Your task to perform on an android device: What's the weather today? Image 0: 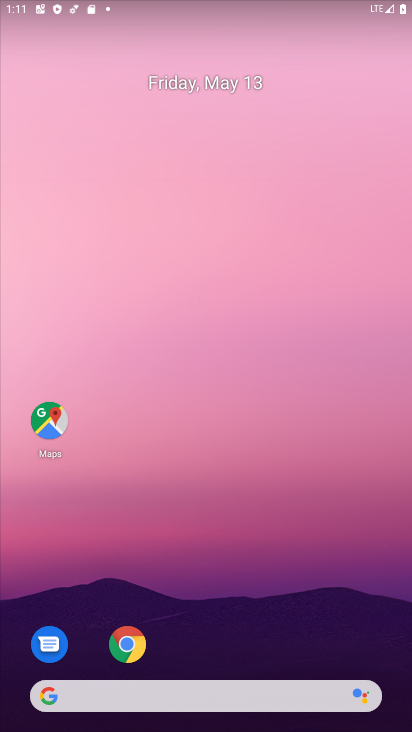
Step 0: click (174, 690)
Your task to perform on an android device: What's the weather today? Image 1: 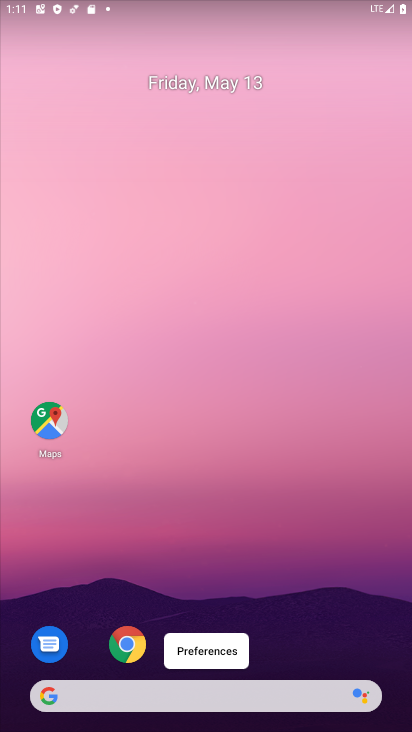
Step 1: click (174, 690)
Your task to perform on an android device: What's the weather today? Image 2: 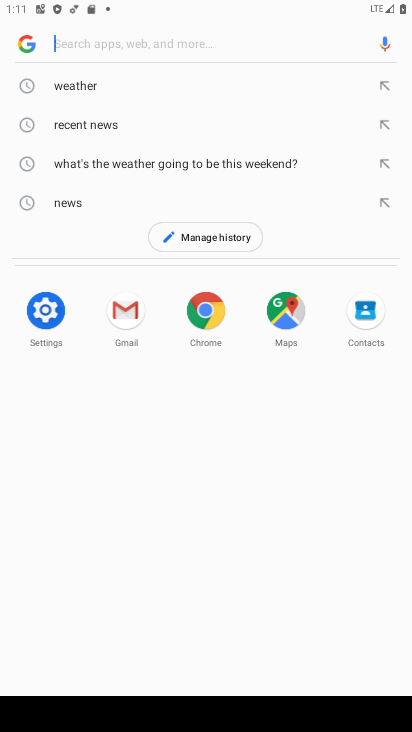
Step 2: press home button
Your task to perform on an android device: What's the weather today? Image 3: 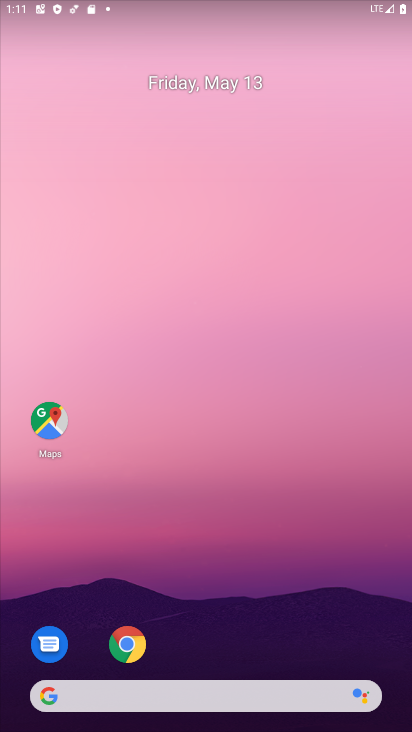
Step 3: drag from (364, 595) to (295, 34)
Your task to perform on an android device: What's the weather today? Image 4: 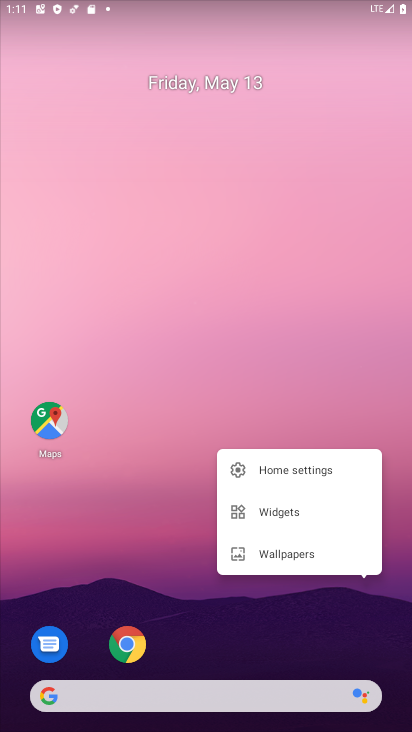
Step 4: click (126, 326)
Your task to perform on an android device: What's the weather today? Image 5: 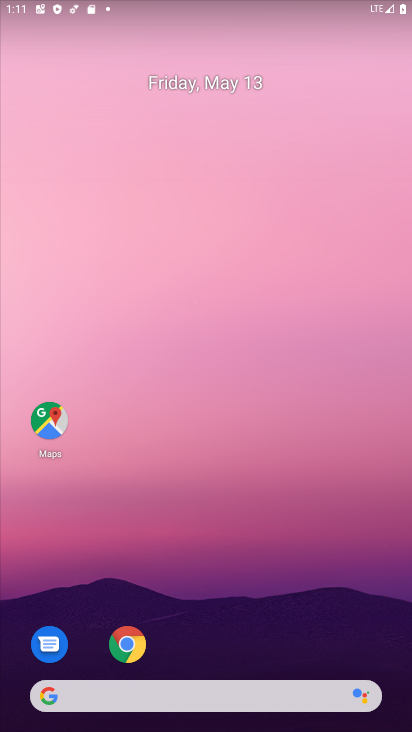
Step 5: drag from (353, 610) to (355, 20)
Your task to perform on an android device: What's the weather today? Image 6: 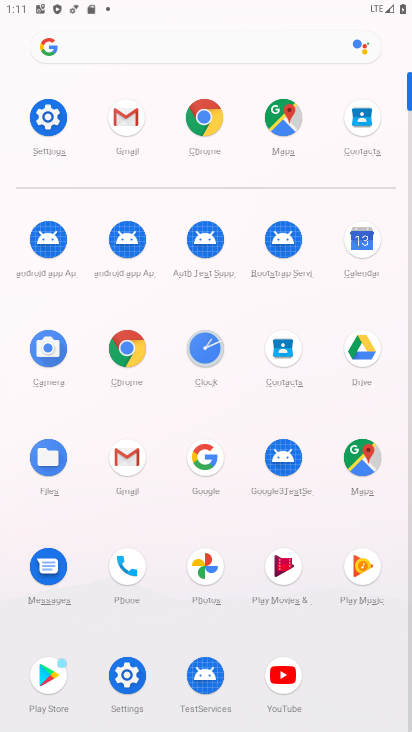
Step 6: click (208, 478)
Your task to perform on an android device: What's the weather today? Image 7: 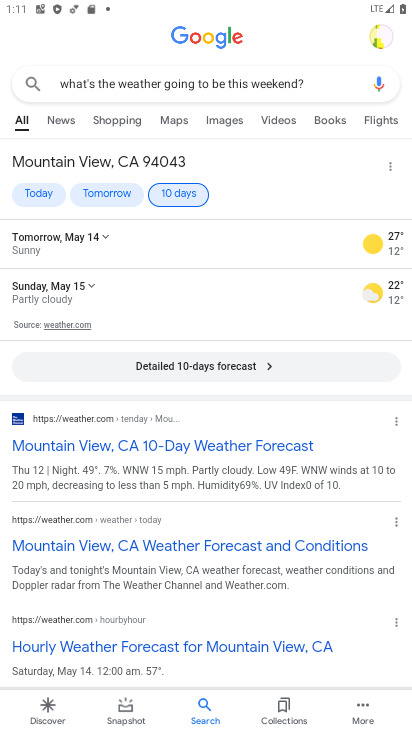
Step 7: press back button
Your task to perform on an android device: What's the weather today? Image 8: 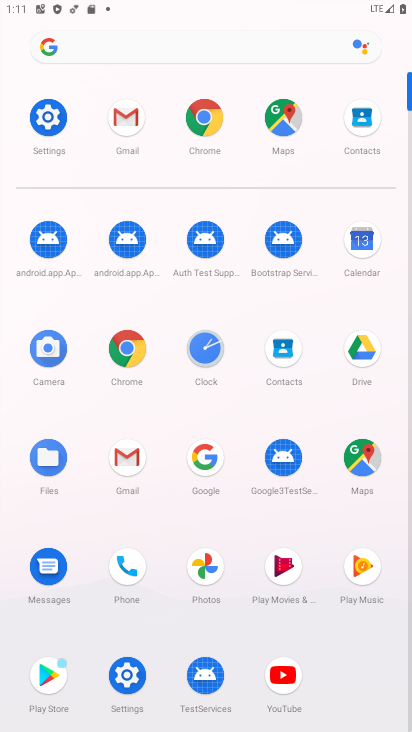
Step 8: click (204, 458)
Your task to perform on an android device: What's the weather today? Image 9: 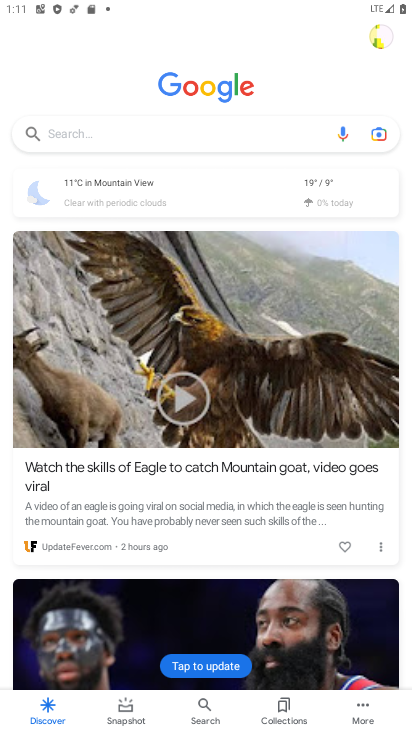
Step 9: click (156, 129)
Your task to perform on an android device: What's the weather today? Image 10: 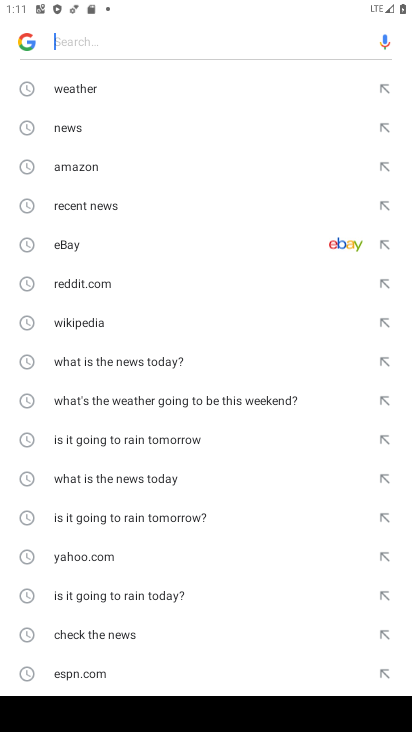
Step 10: drag from (129, 581) to (182, 274)
Your task to perform on an android device: What's the weather today? Image 11: 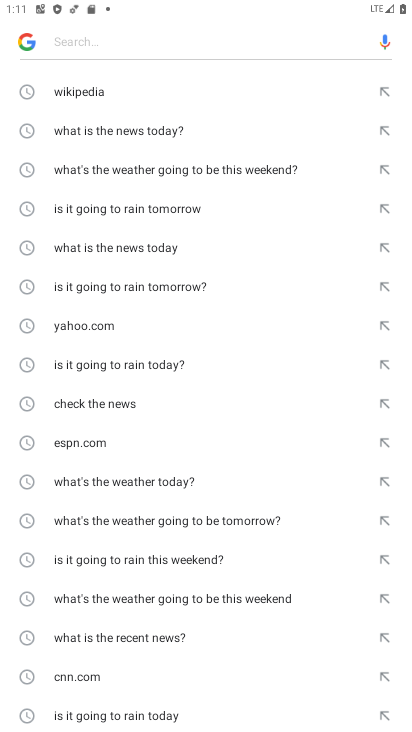
Step 11: click (180, 491)
Your task to perform on an android device: What's the weather today? Image 12: 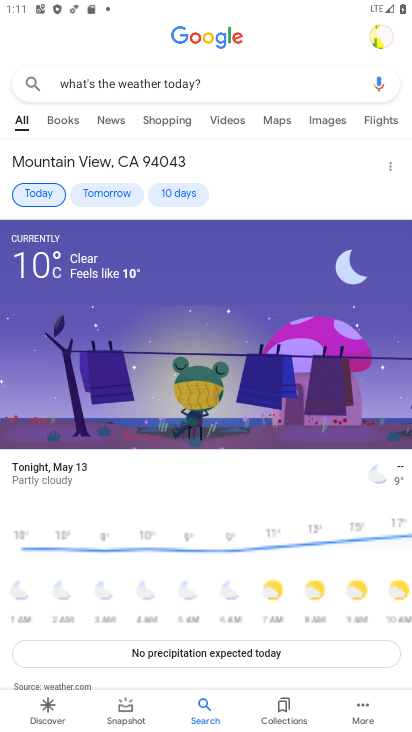
Step 12: task complete